Your task to perform on an android device: Open the calendar app, open the side menu, and click the "Day" option Image 0: 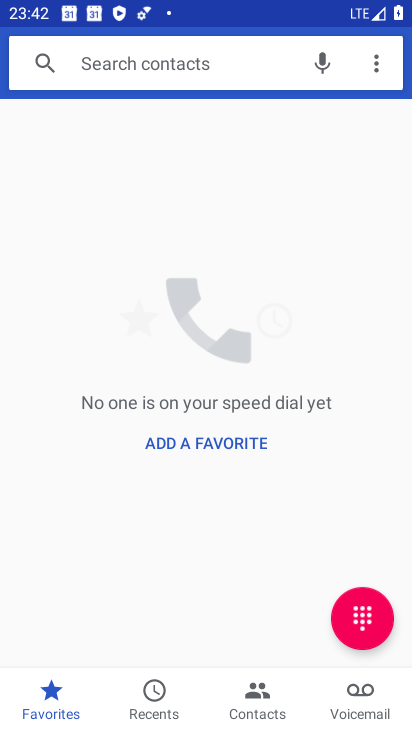
Step 0: press home button
Your task to perform on an android device: Open the calendar app, open the side menu, and click the "Day" option Image 1: 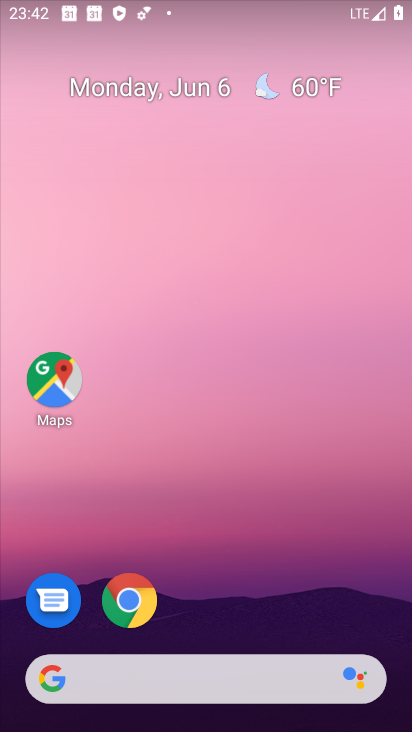
Step 1: drag from (208, 694) to (166, 72)
Your task to perform on an android device: Open the calendar app, open the side menu, and click the "Day" option Image 2: 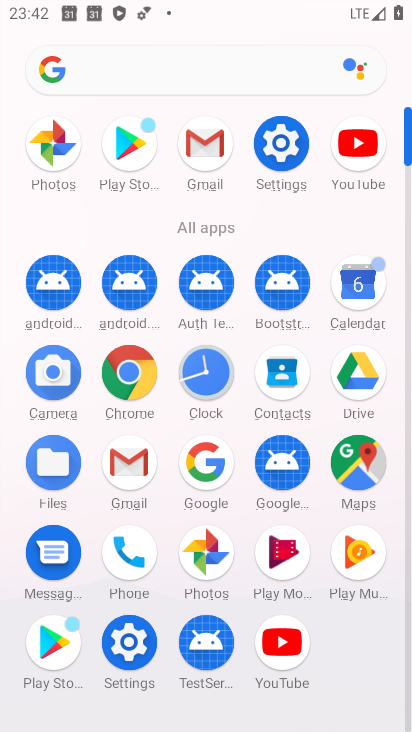
Step 2: click (368, 286)
Your task to perform on an android device: Open the calendar app, open the side menu, and click the "Day" option Image 3: 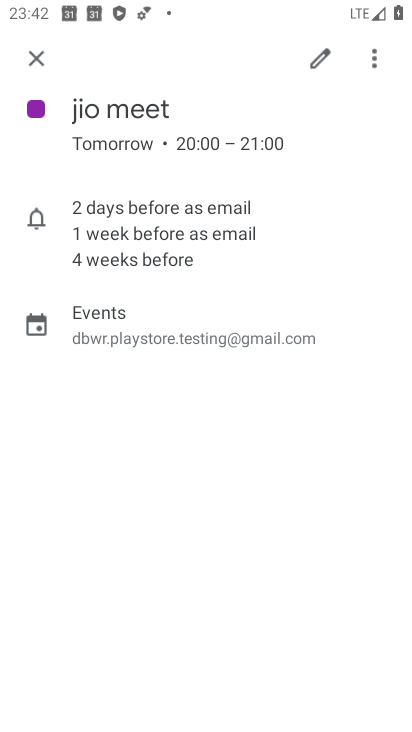
Step 3: click (38, 57)
Your task to perform on an android device: Open the calendar app, open the side menu, and click the "Day" option Image 4: 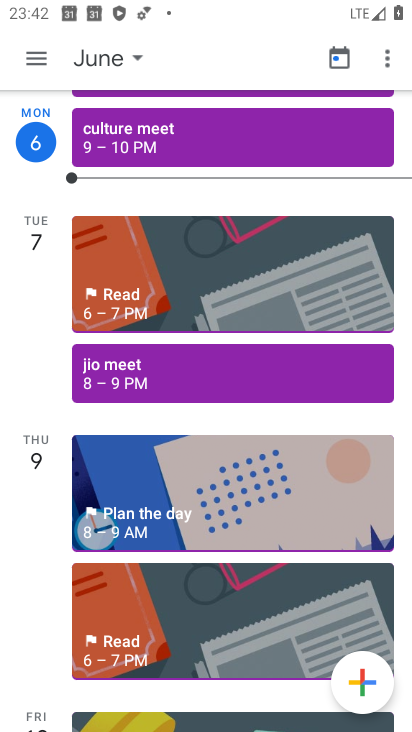
Step 4: click (35, 57)
Your task to perform on an android device: Open the calendar app, open the side menu, and click the "Day" option Image 5: 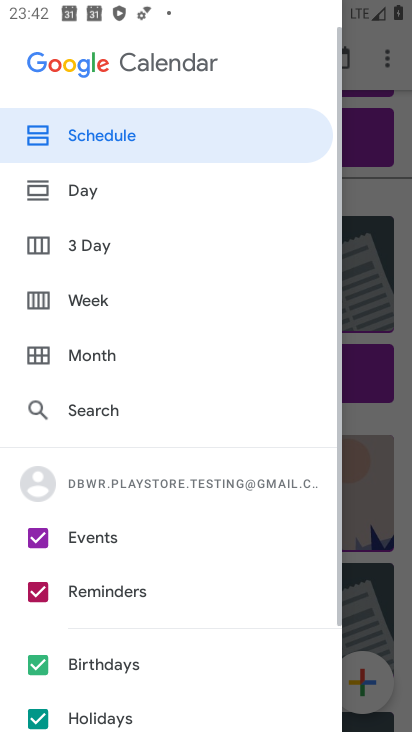
Step 5: click (75, 194)
Your task to perform on an android device: Open the calendar app, open the side menu, and click the "Day" option Image 6: 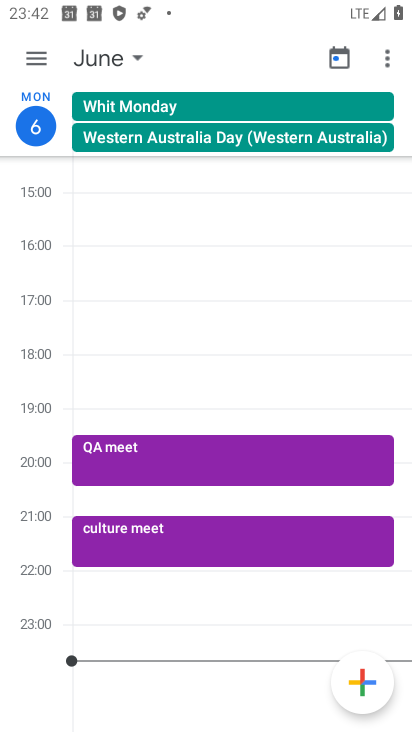
Step 6: task complete